Your task to perform on an android device: open sync settings in chrome Image 0: 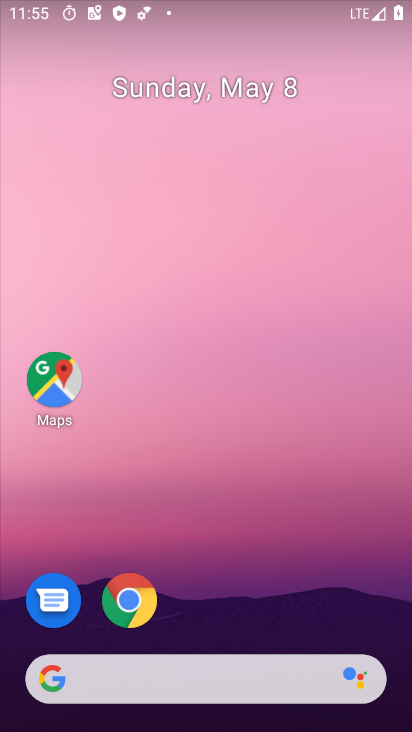
Step 0: drag from (285, 578) to (275, 229)
Your task to perform on an android device: open sync settings in chrome Image 1: 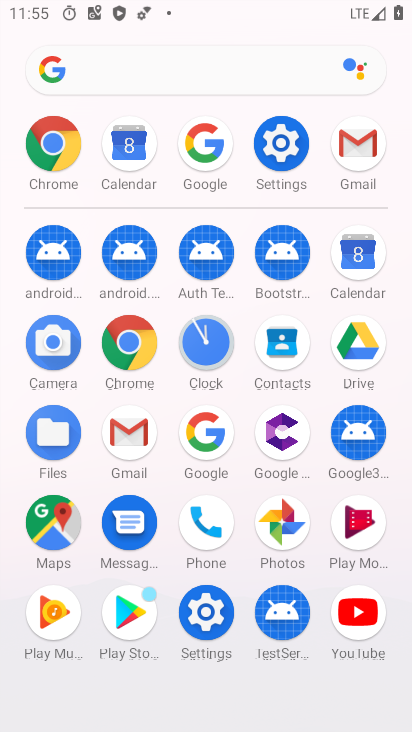
Step 1: click (144, 351)
Your task to perform on an android device: open sync settings in chrome Image 2: 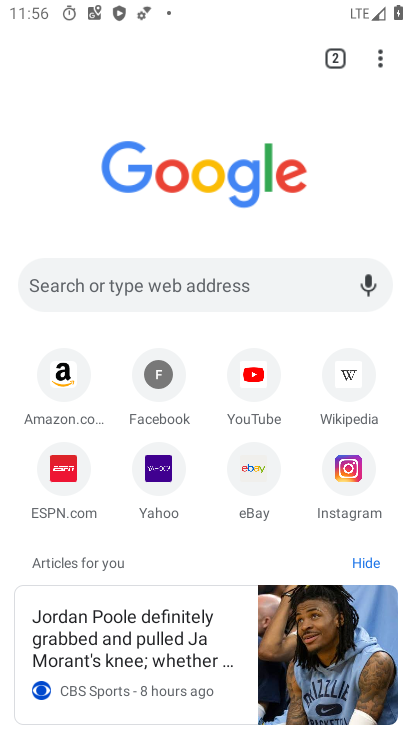
Step 2: click (385, 63)
Your task to perform on an android device: open sync settings in chrome Image 3: 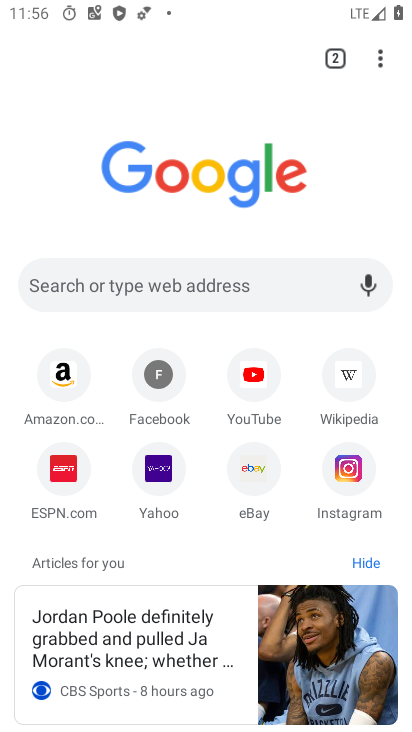
Step 3: click (378, 62)
Your task to perform on an android device: open sync settings in chrome Image 4: 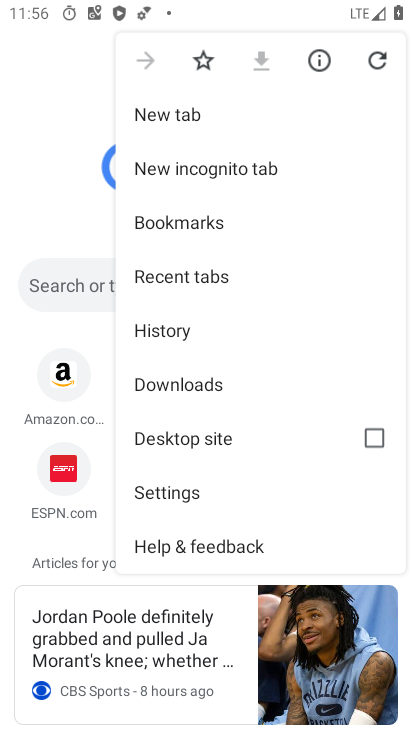
Step 4: click (189, 488)
Your task to perform on an android device: open sync settings in chrome Image 5: 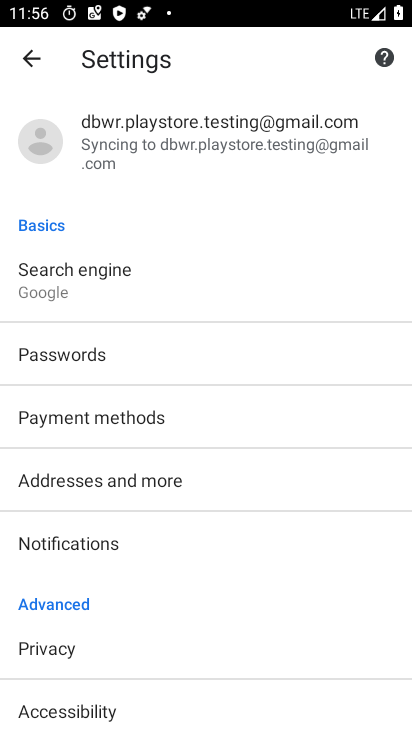
Step 5: click (234, 140)
Your task to perform on an android device: open sync settings in chrome Image 6: 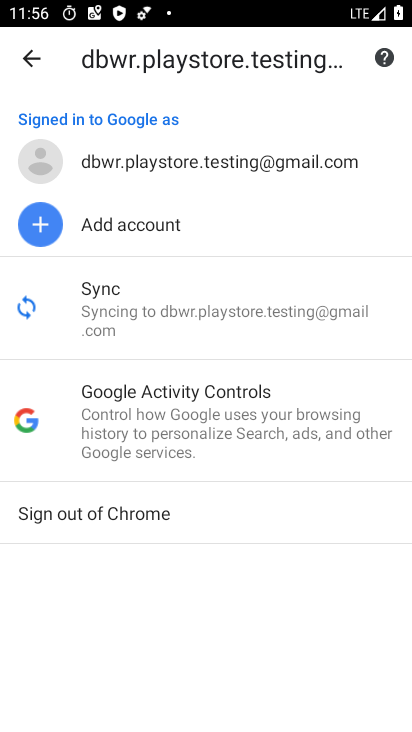
Step 6: click (188, 311)
Your task to perform on an android device: open sync settings in chrome Image 7: 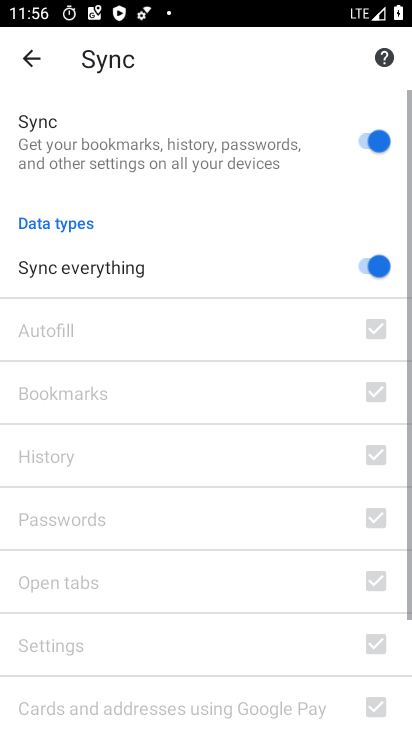
Step 7: click (71, 319)
Your task to perform on an android device: open sync settings in chrome Image 8: 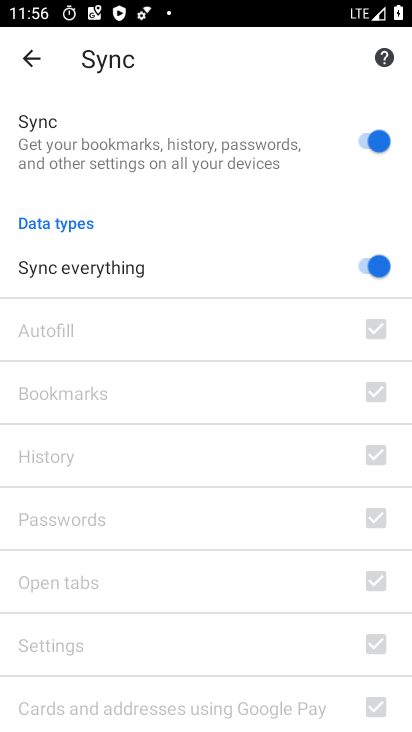
Step 8: task complete